Your task to perform on an android device: open sync settings in chrome Image 0: 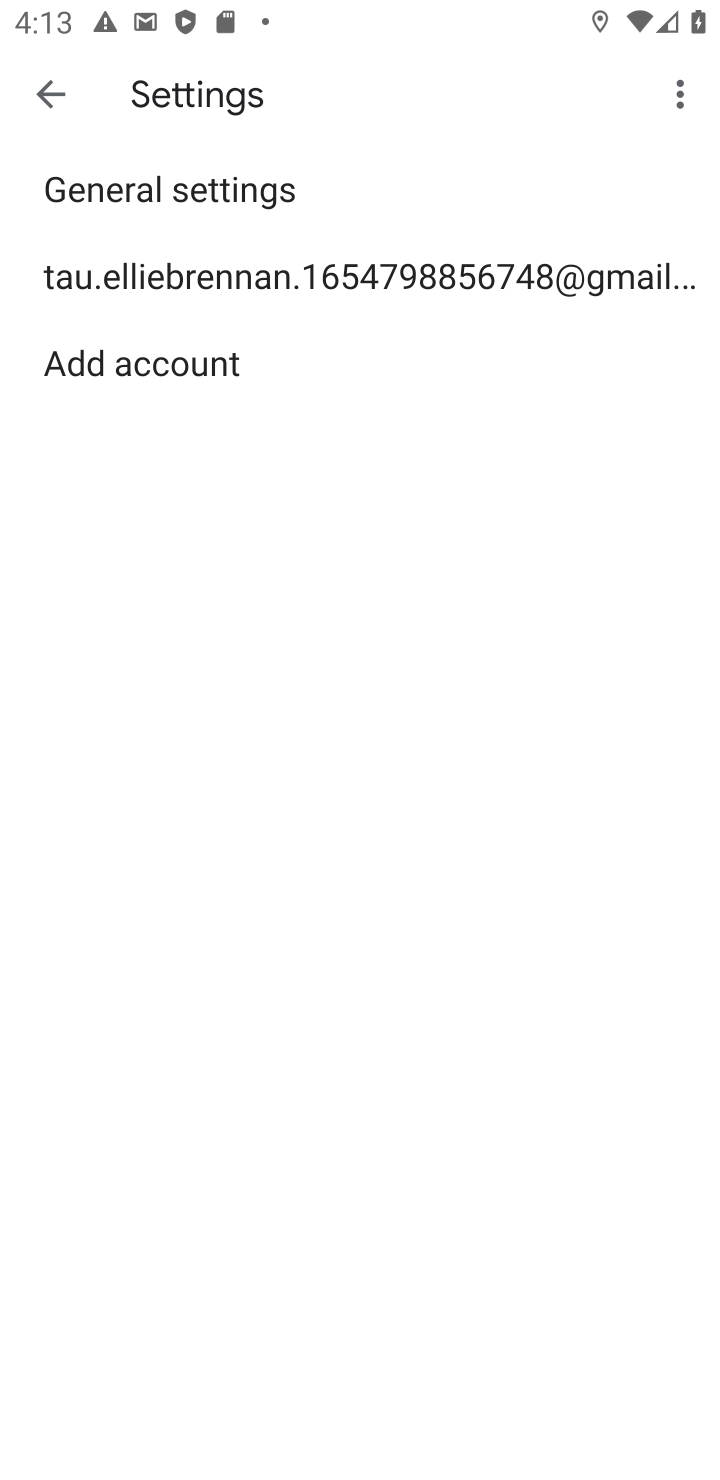
Step 0: press home button
Your task to perform on an android device: open sync settings in chrome Image 1: 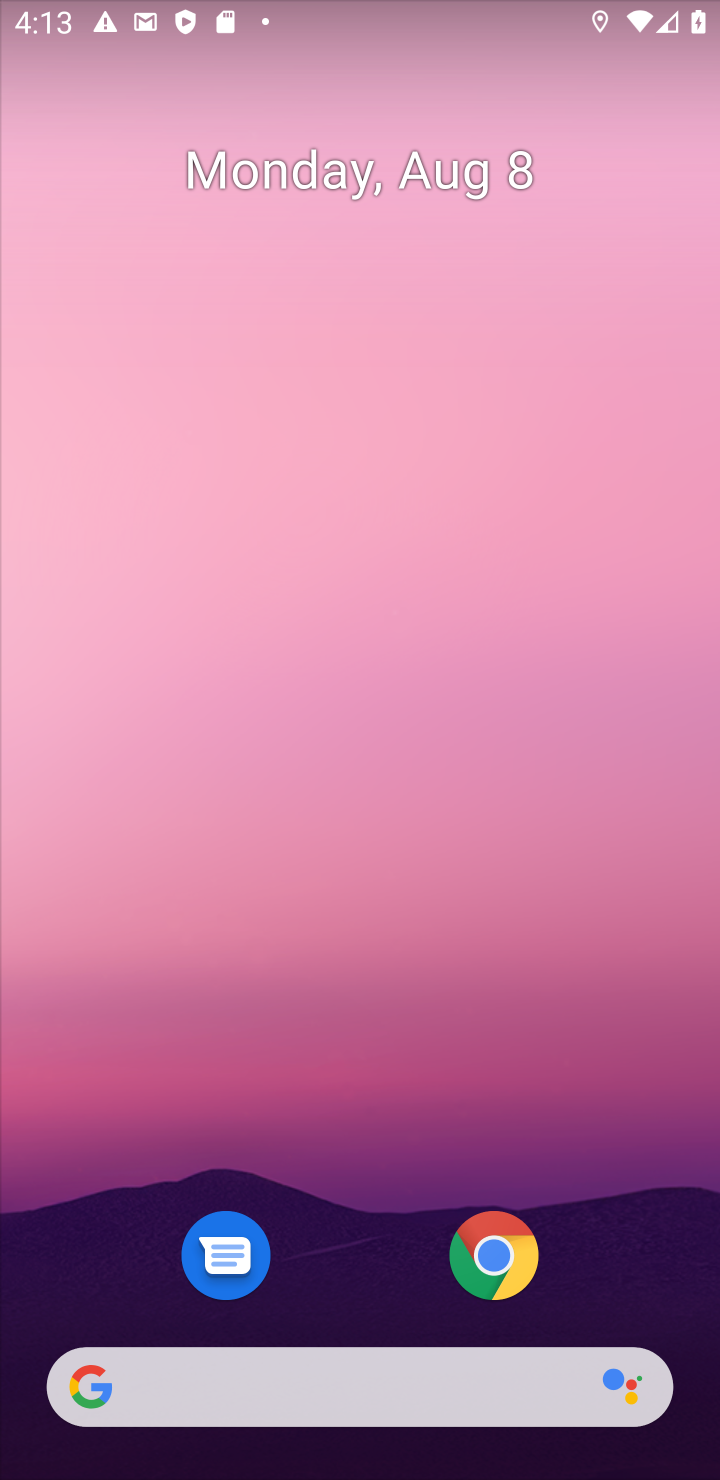
Step 1: click (499, 1259)
Your task to perform on an android device: open sync settings in chrome Image 2: 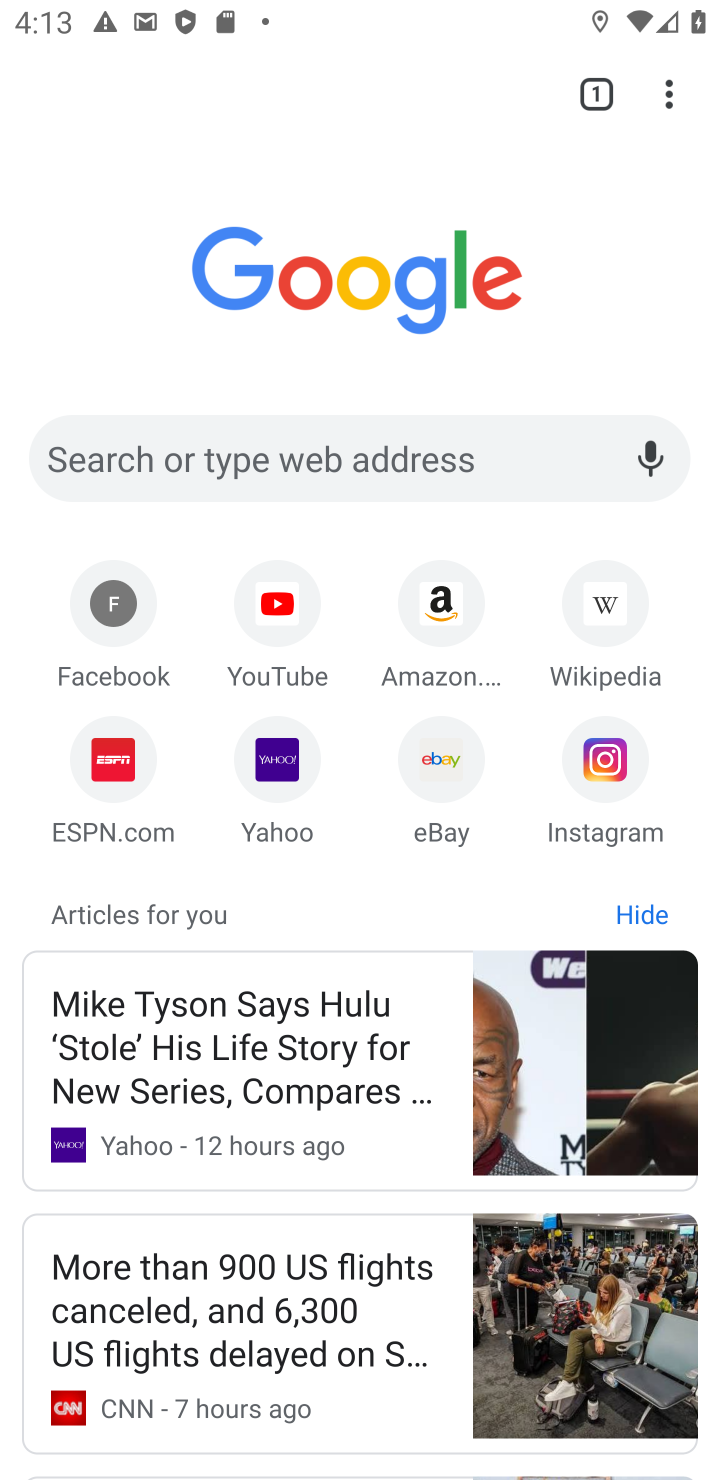
Step 2: click (666, 95)
Your task to perform on an android device: open sync settings in chrome Image 3: 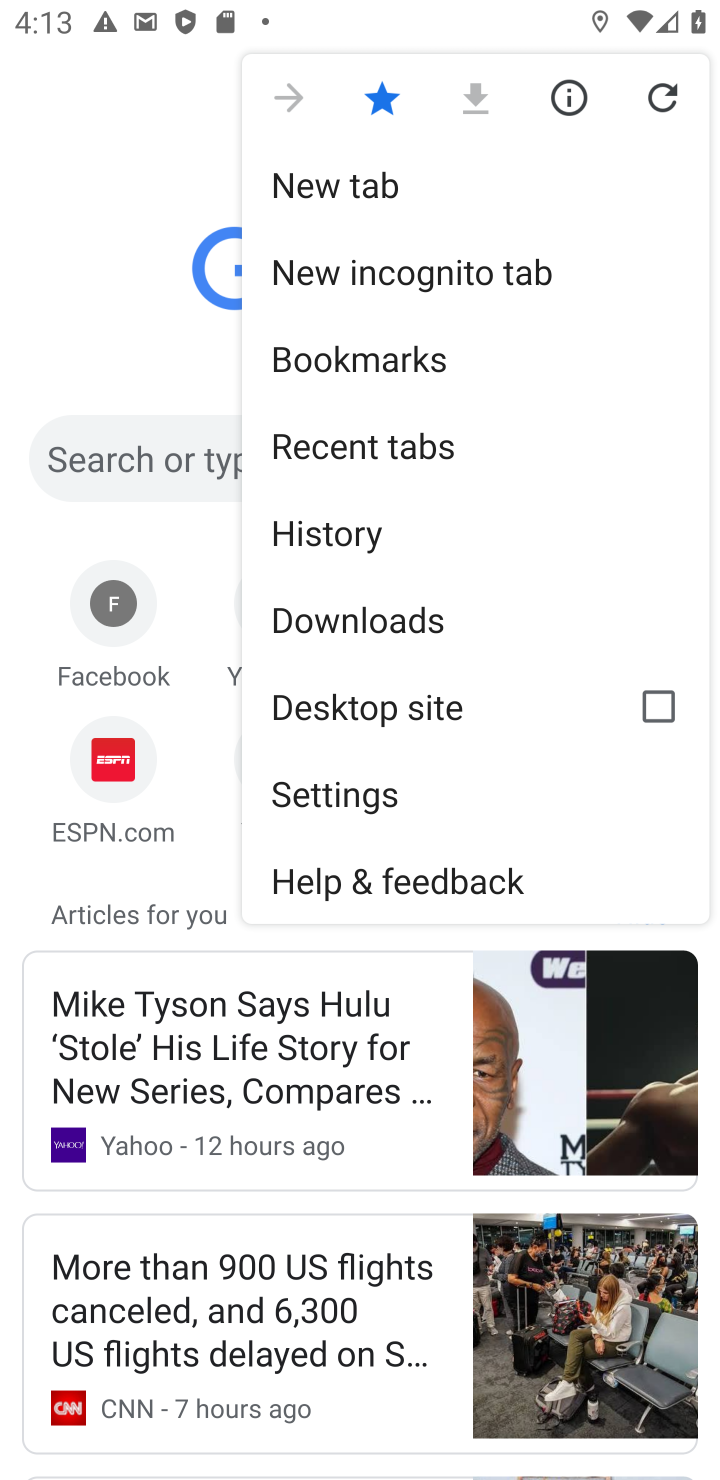
Step 3: click (339, 786)
Your task to perform on an android device: open sync settings in chrome Image 4: 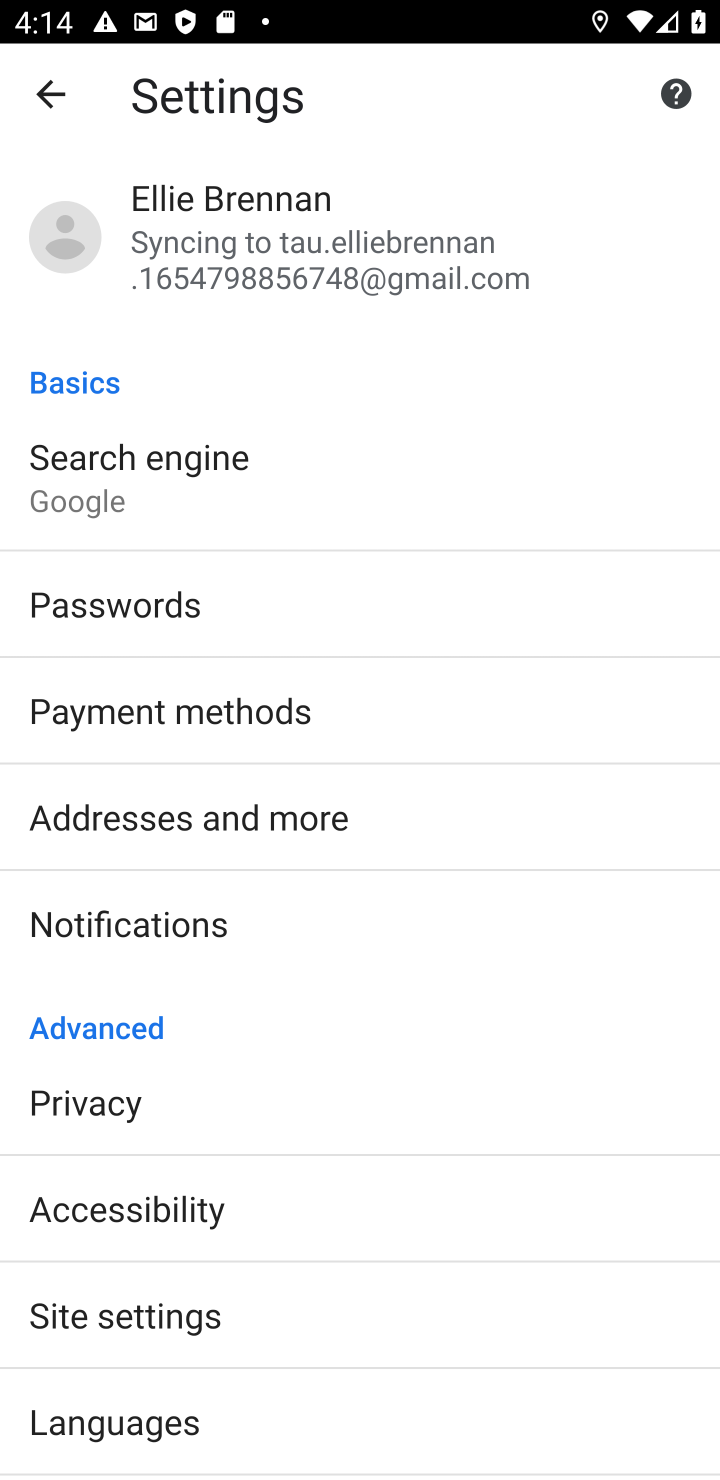
Step 4: click (146, 1318)
Your task to perform on an android device: open sync settings in chrome Image 5: 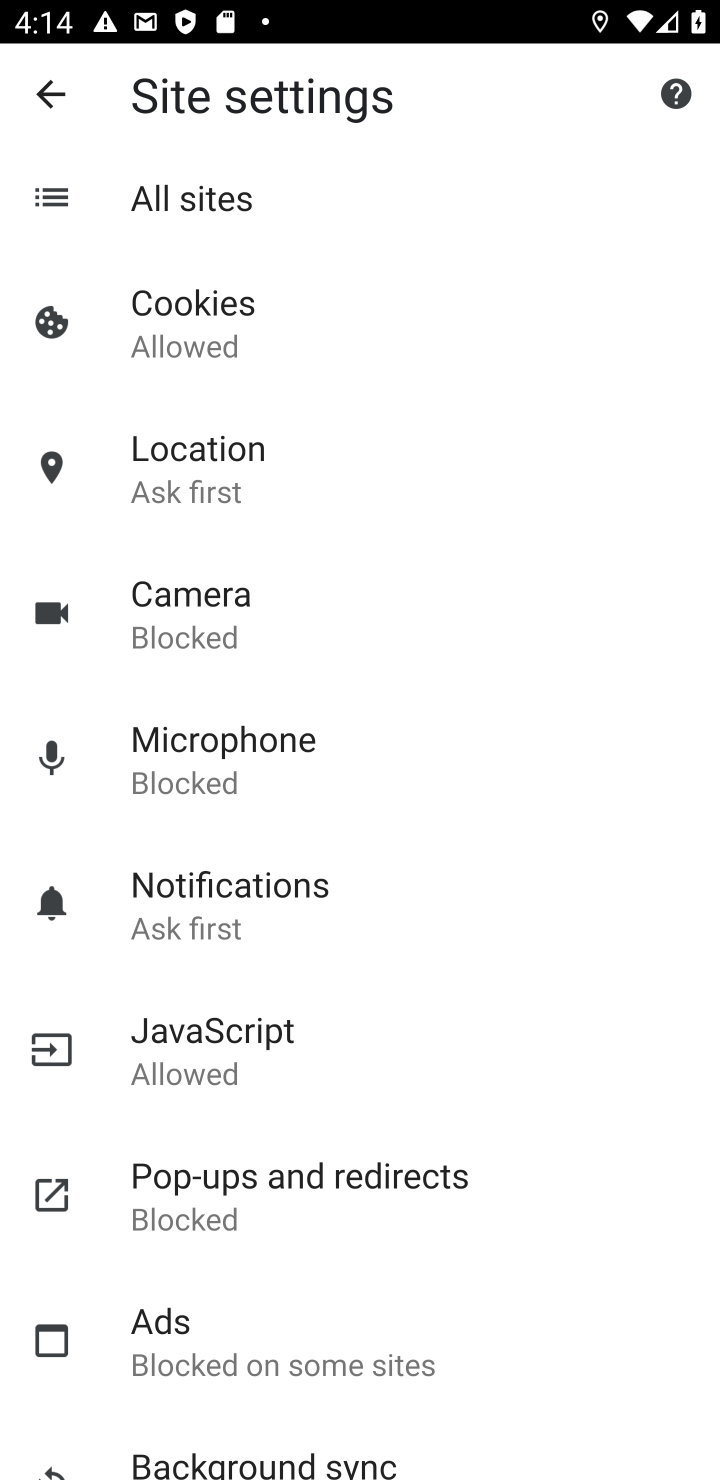
Step 5: drag from (358, 1072) to (514, 776)
Your task to perform on an android device: open sync settings in chrome Image 6: 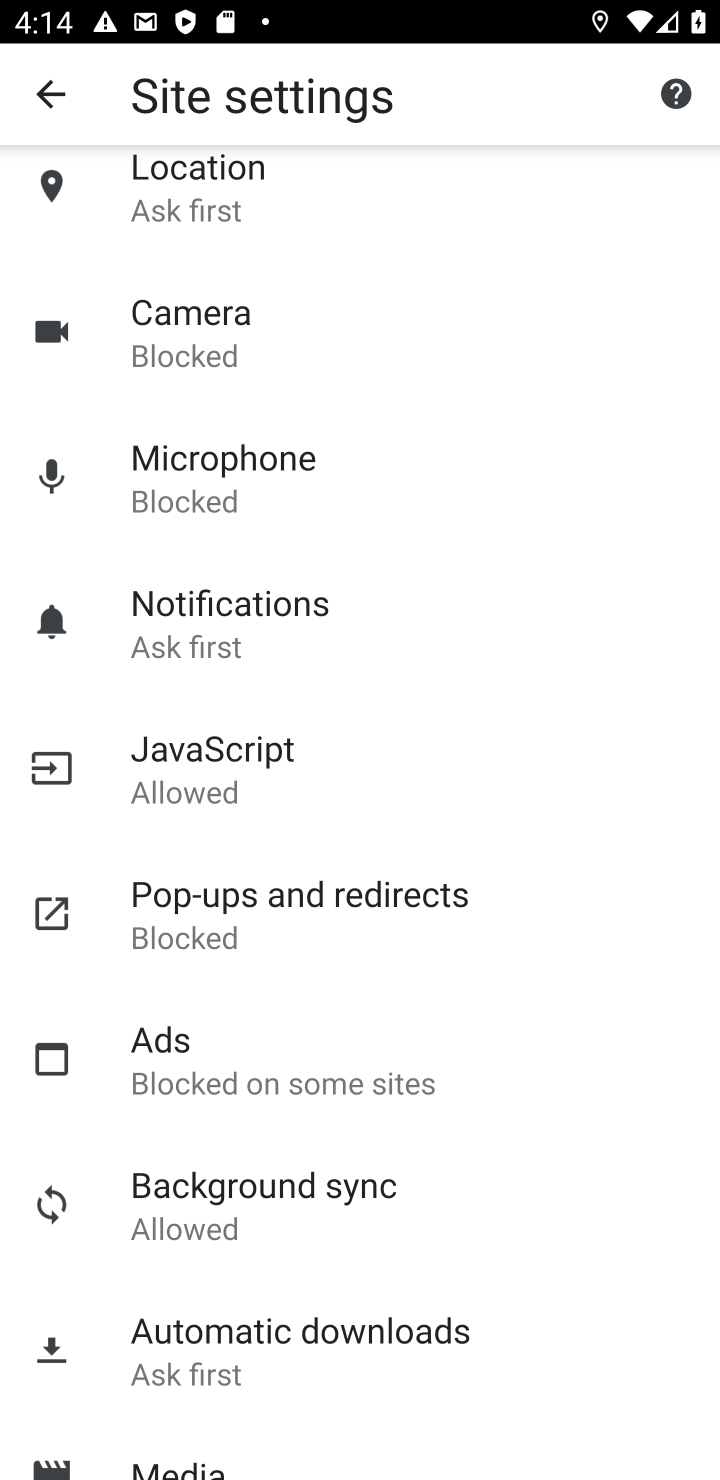
Step 6: click (283, 1216)
Your task to perform on an android device: open sync settings in chrome Image 7: 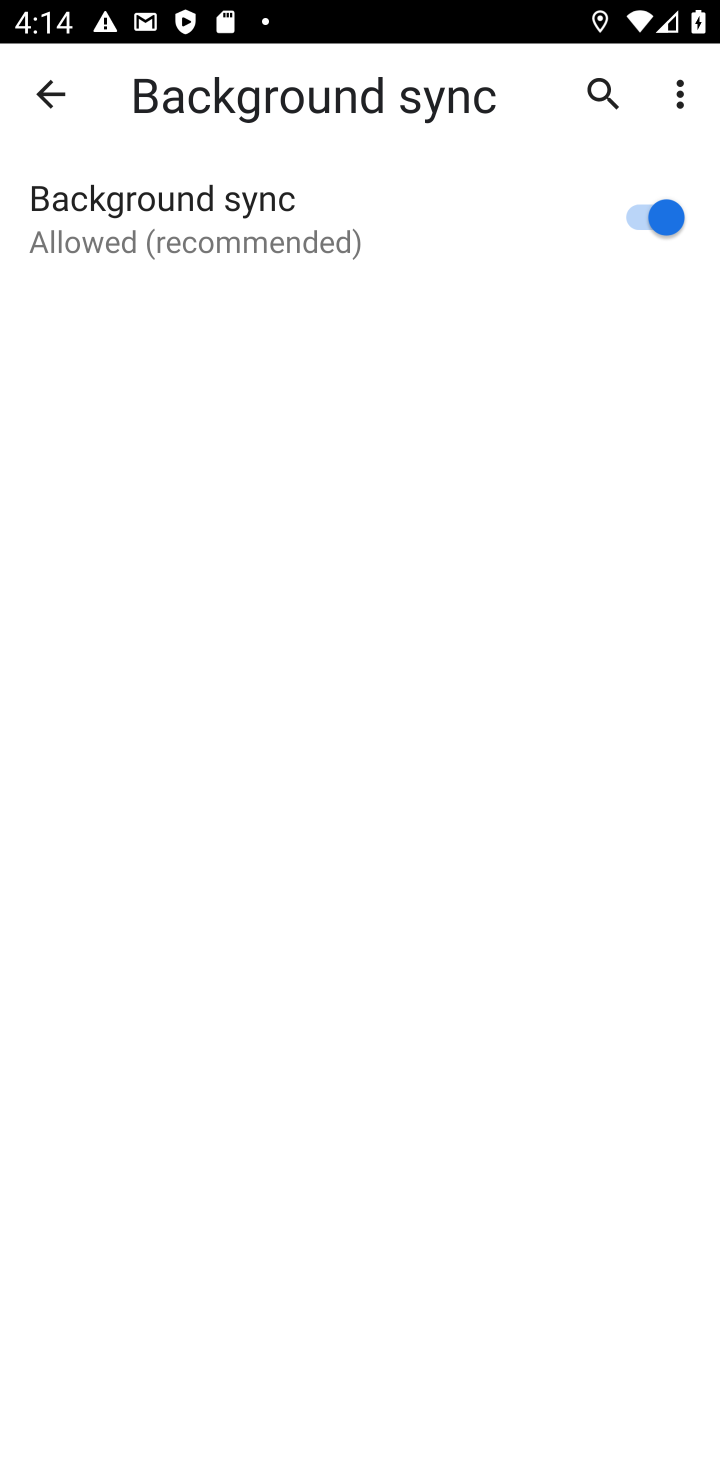
Step 7: task complete